Your task to perform on an android device: When is my next meeting? Image 0: 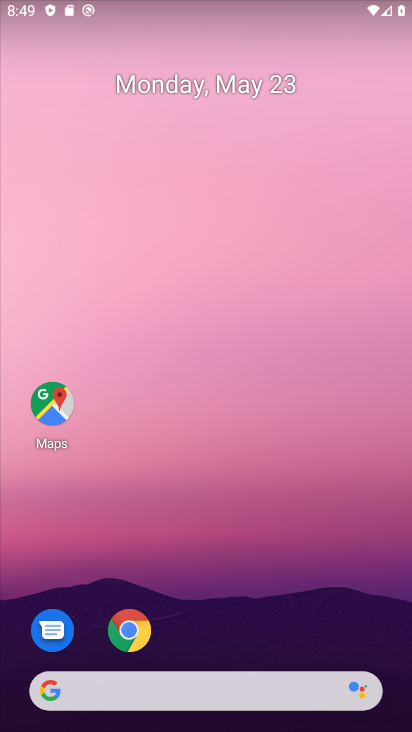
Step 0: drag from (213, 679) to (271, 430)
Your task to perform on an android device: When is my next meeting? Image 1: 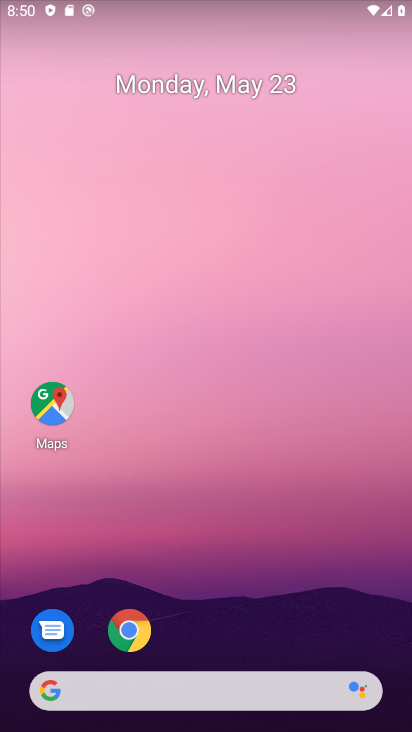
Step 1: drag from (218, 661) to (265, 0)
Your task to perform on an android device: When is my next meeting? Image 2: 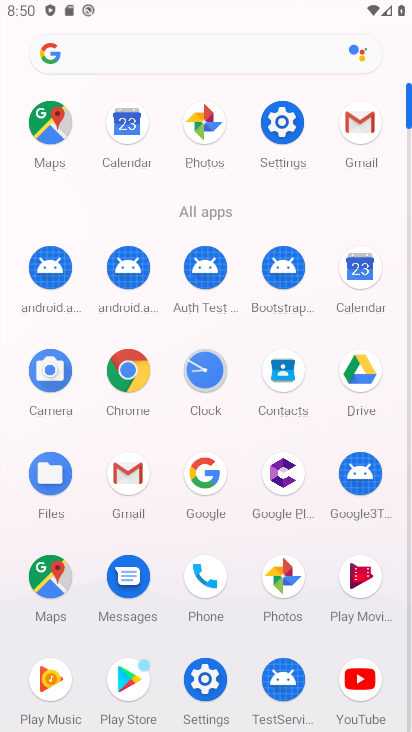
Step 2: click (367, 270)
Your task to perform on an android device: When is my next meeting? Image 3: 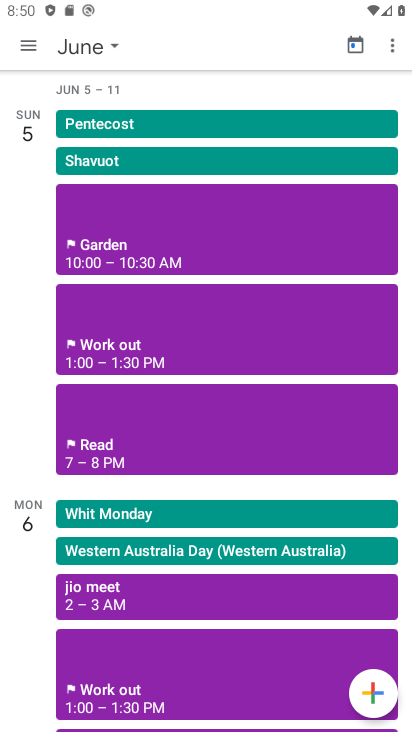
Step 3: click (99, 44)
Your task to perform on an android device: When is my next meeting? Image 4: 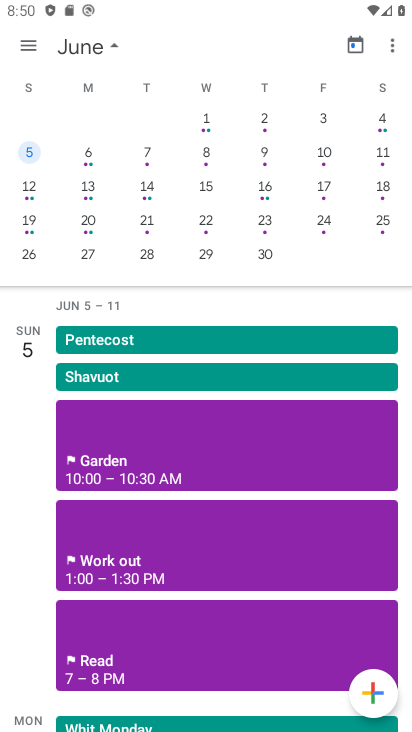
Step 4: drag from (129, 193) to (407, 185)
Your task to perform on an android device: When is my next meeting? Image 5: 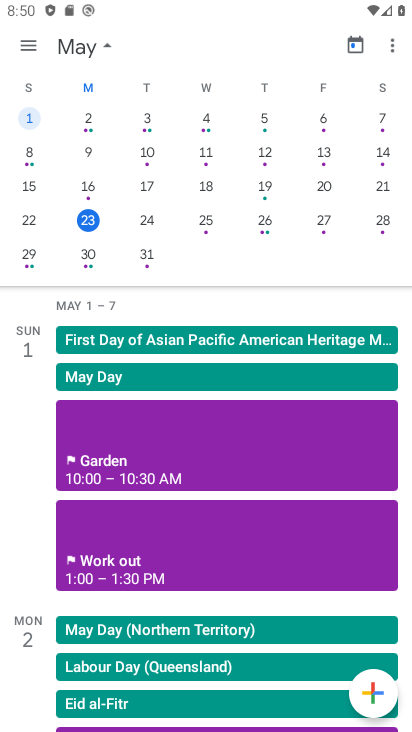
Step 5: click (142, 223)
Your task to perform on an android device: When is my next meeting? Image 6: 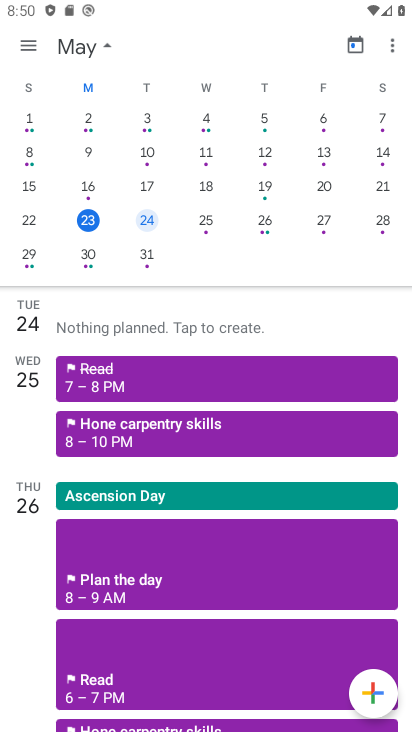
Step 6: click (158, 377)
Your task to perform on an android device: When is my next meeting? Image 7: 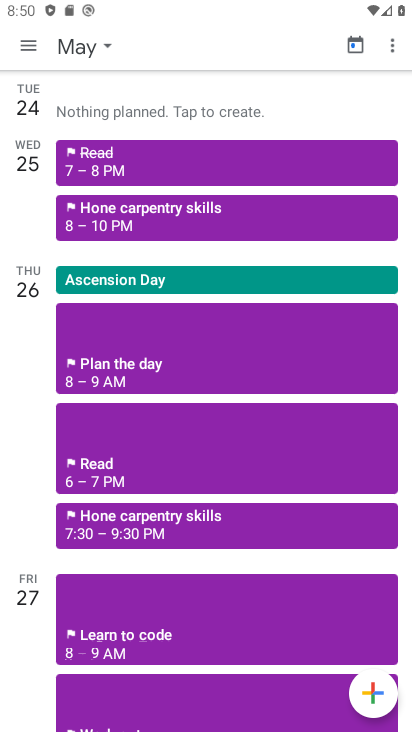
Step 7: task complete